Your task to perform on an android device: set default search engine in the chrome app Image 0: 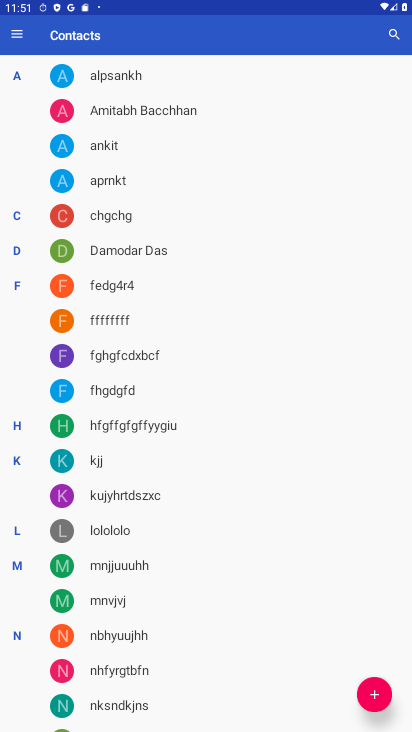
Step 0: press home button
Your task to perform on an android device: set default search engine in the chrome app Image 1: 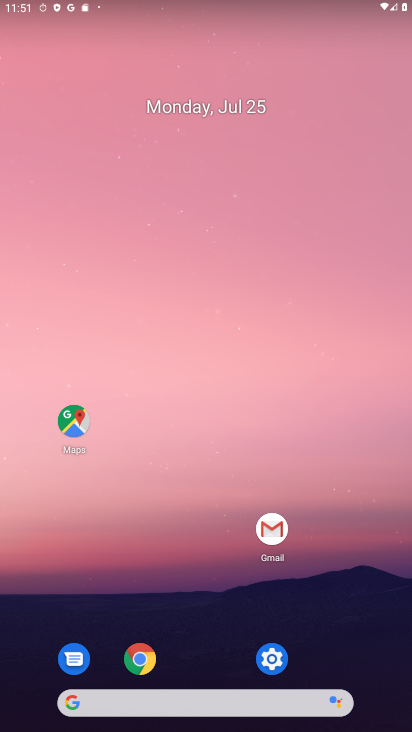
Step 1: click (140, 655)
Your task to perform on an android device: set default search engine in the chrome app Image 2: 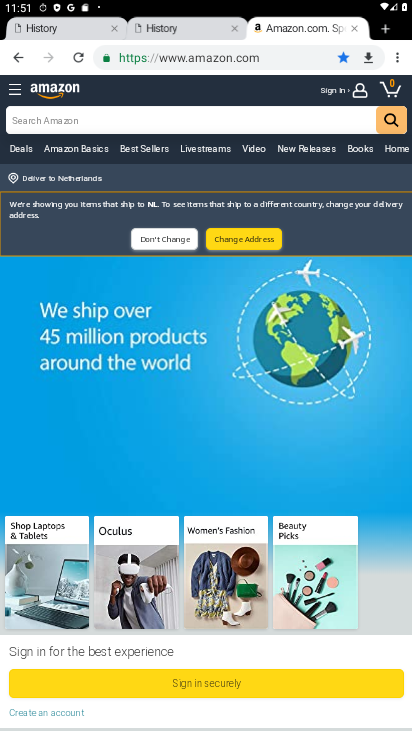
Step 2: click (393, 63)
Your task to perform on an android device: set default search engine in the chrome app Image 3: 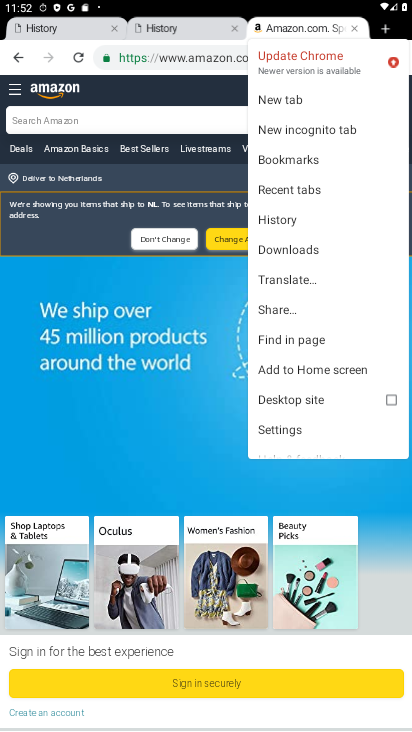
Step 3: click (277, 432)
Your task to perform on an android device: set default search engine in the chrome app Image 4: 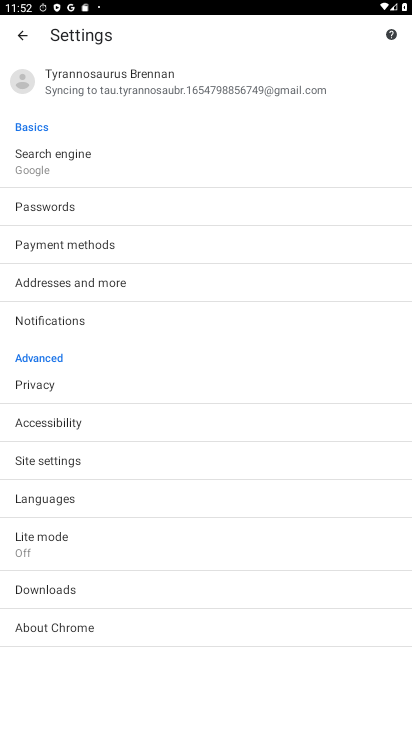
Step 4: click (54, 166)
Your task to perform on an android device: set default search engine in the chrome app Image 5: 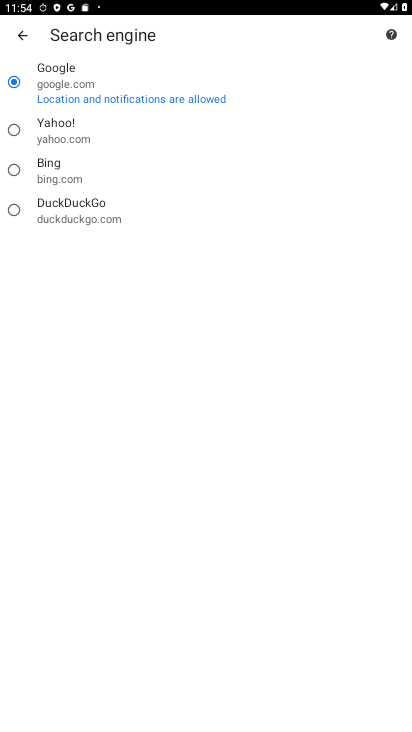
Step 5: task complete